Your task to perform on an android device: What's on my calendar today? Image 0: 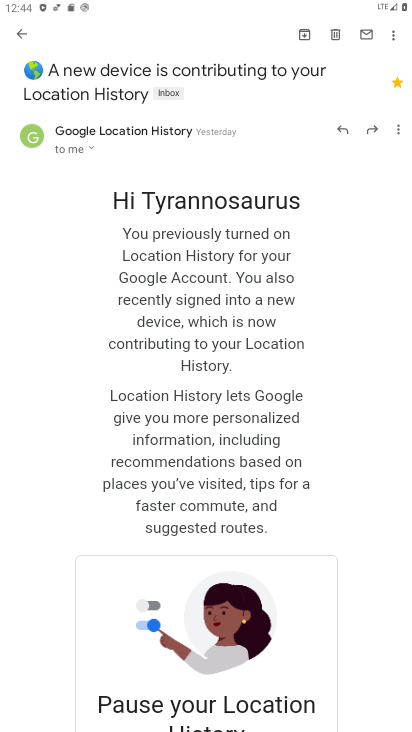
Step 0: press home button
Your task to perform on an android device: What's on my calendar today? Image 1: 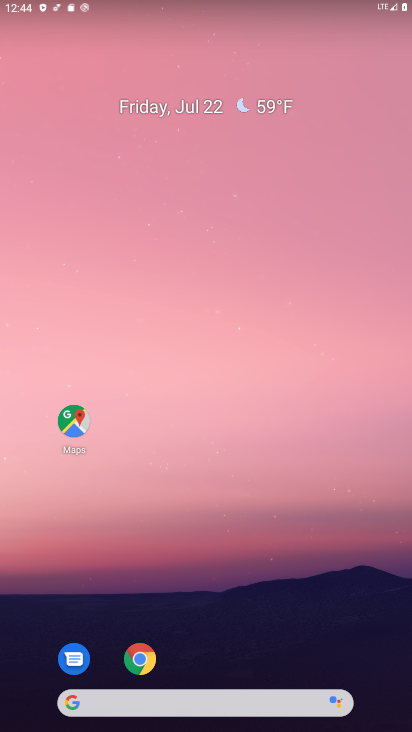
Step 1: drag from (225, 650) to (242, 186)
Your task to perform on an android device: What's on my calendar today? Image 2: 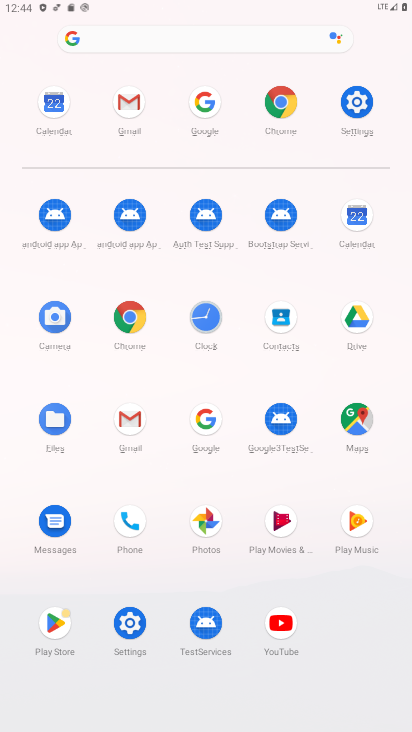
Step 2: click (354, 228)
Your task to perform on an android device: What's on my calendar today? Image 3: 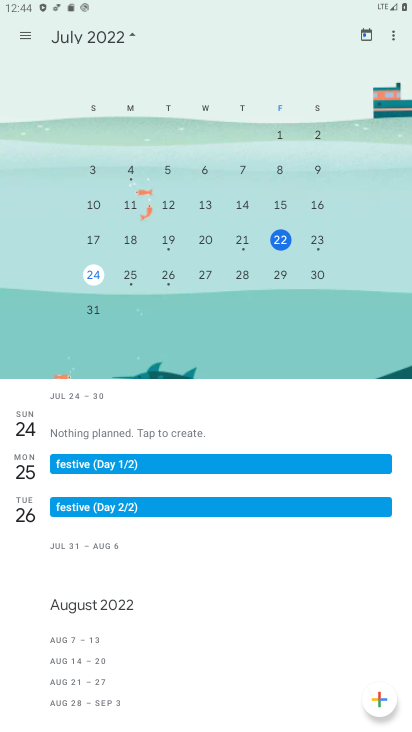
Step 3: task complete